Your task to perform on an android device: What's on my calendar tomorrow? Image 0: 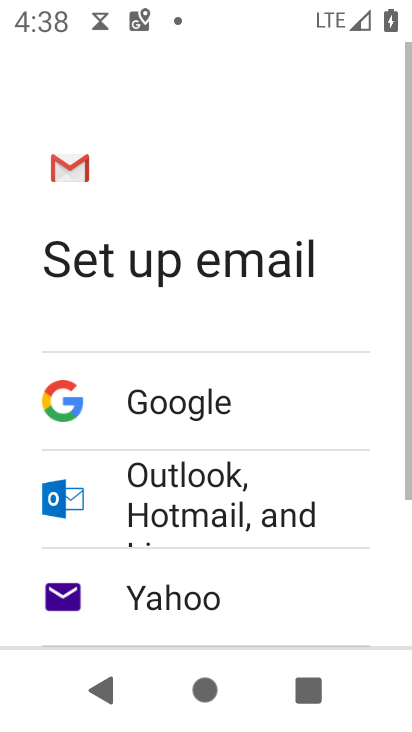
Step 0: press home button
Your task to perform on an android device: What's on my calendar tomorrow? Image 1: 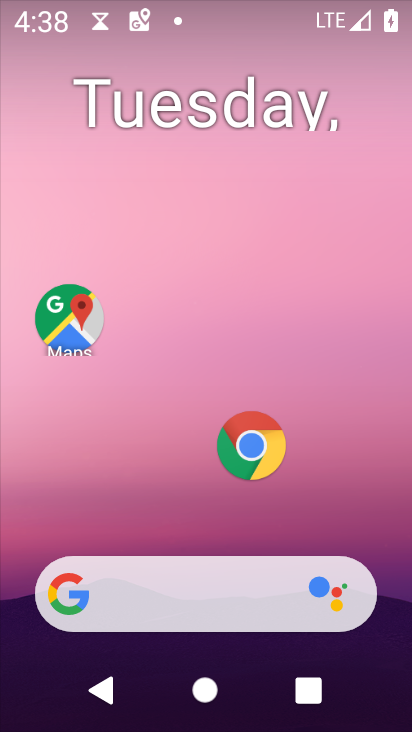
Step 1: drag from (150, 502) to (212, 5)
Your task to perform on an android device: What's on my calendar tomorrow? Image 2: 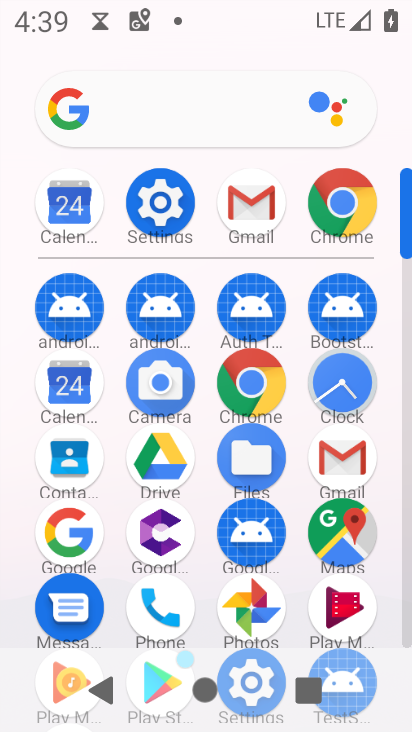
Step 2: click (69, 392)
Your task to perform on an android device: What's on my calendar tomorrow? Image 3: 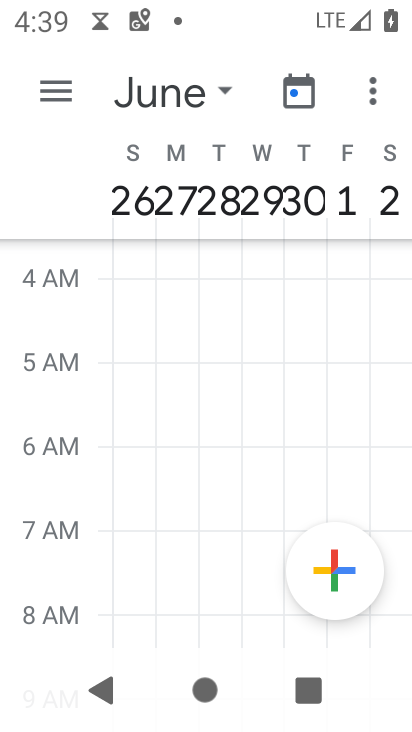
Step 3: drag from (184, 215) to (409, 233)
Your task to perform on an android device: What's on my calendar tomorrow? Image 4: 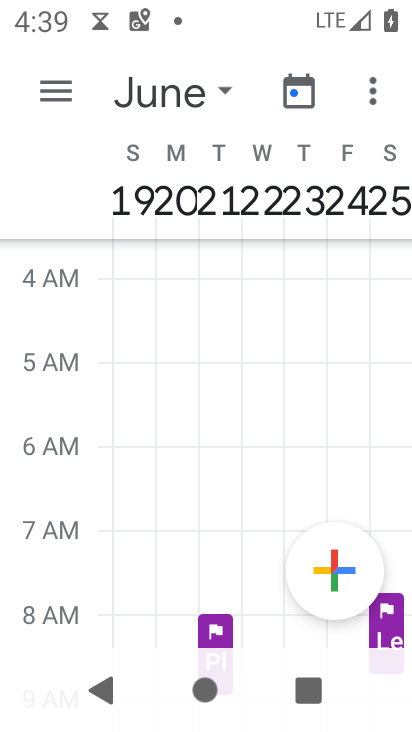
Step 4: drag from (169, 215) to (412, 242)
Your task to perform on an android device: What's on my calendar tomorrow? Image 5: 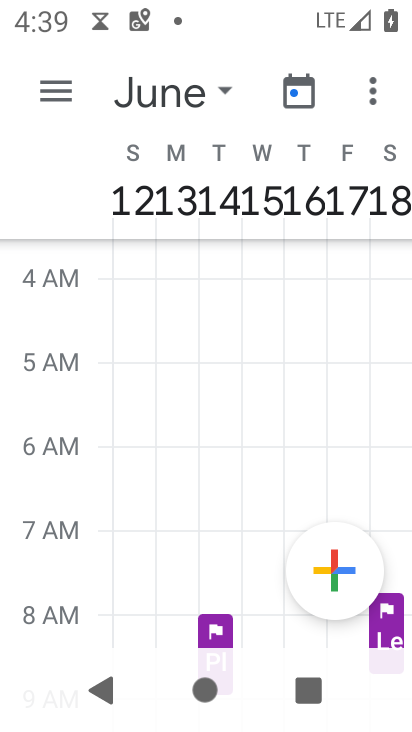
Step 5: drag from (159, 209) to (407, 194)
Your task to perform on an android device: What's on my calendar tomorrow? Image 6: 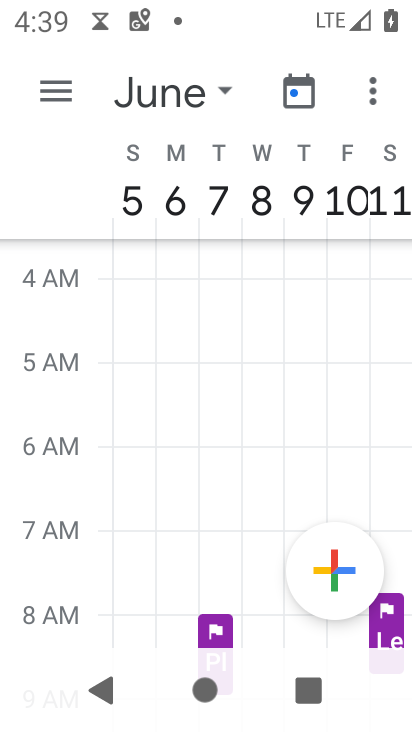
Step 6: drag from (137, 206) to (398, 218)
Your task to perform on an android device: What's on my calendar tomorrow? Image 7: 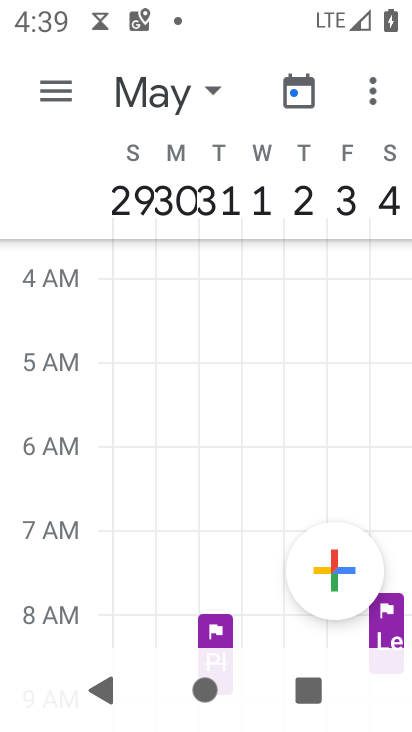
Step 7: drag from (161, 210) to (411, 233)
Your task to perform on an android device: What's on my calendar tomorrow? Image 8: 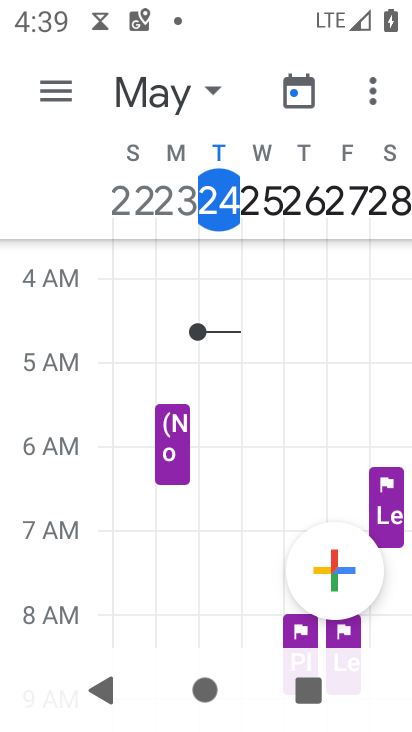
Step 8: click (61, 92)
Your task to perform on an android device: What's on my calendar tomorrow? Image 9: 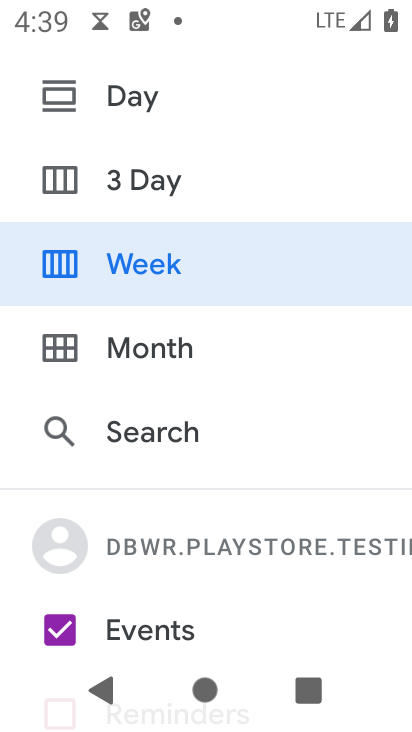
Step 9: click (107, 196)
Your task to perform on an android device: What's on my calendar tomorrow? Image 10: 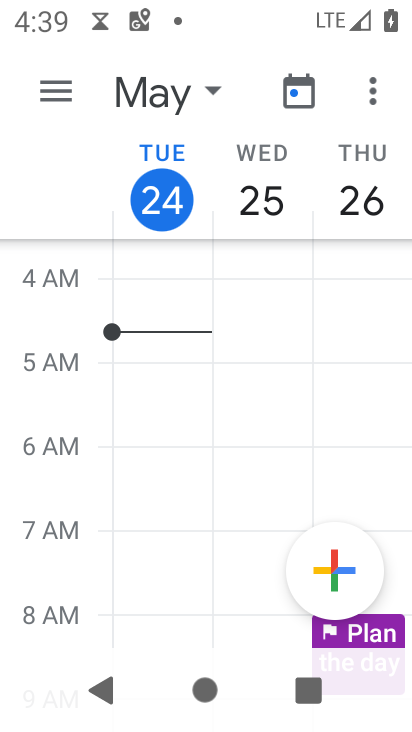
Step 10: task complete